Your task to perform on an android device: set default search engine in the chrome app Image 0: 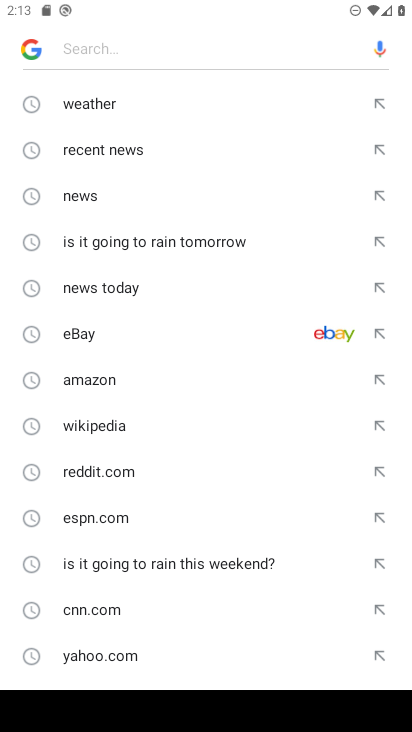
Step 0: press home button
Your task to perform on an android device: set default search engine in the chrome app Image 1: 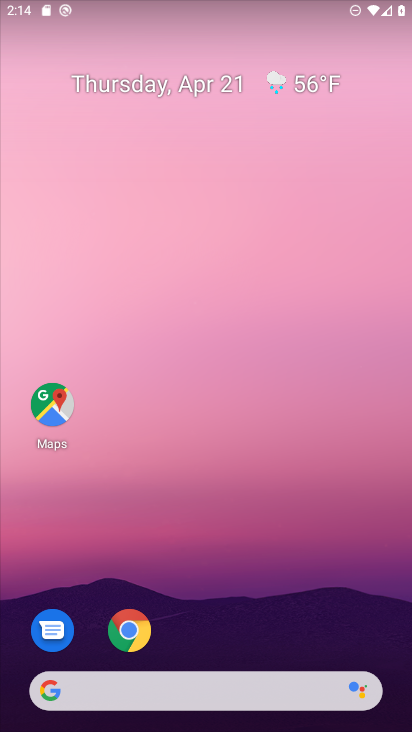
Step 1: click (132, 605)
Your task to perform on an android device: set default search engine in the chrome app Image 2: 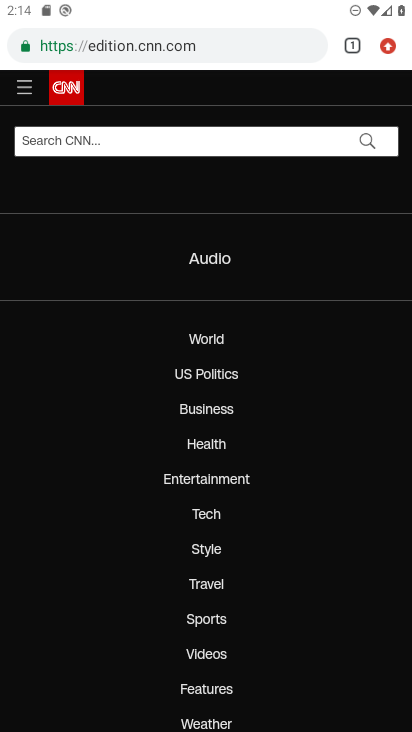
Step 2: drag from (391, 48) to (263, 600)
Your task to perform on an android device: set default search engine in the chrome app Image 3: 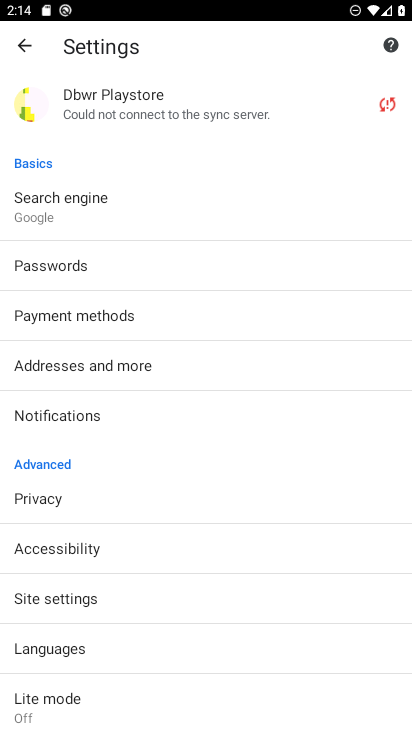
Step 3: click (77, 199)
Your task to perform on an android device: set default search engine in the chrome app Image 4: 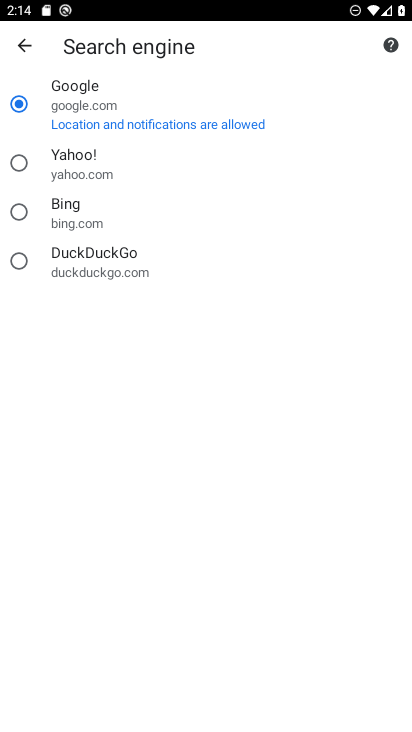
Step 4: click (111, 175)
Your task to perform on an android device: set default search engine in the chrome app Image 5: 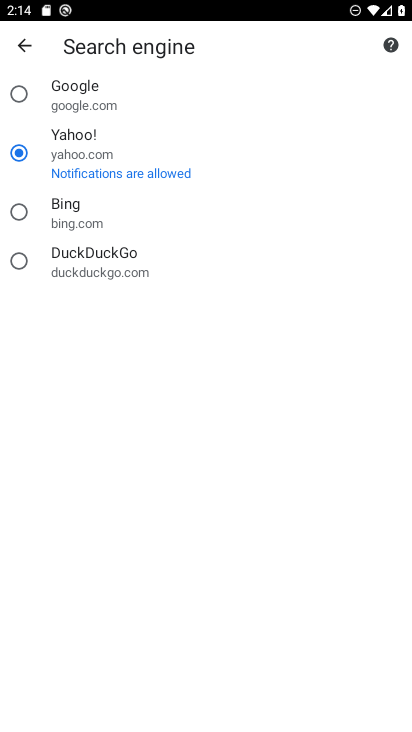
Step 5: task complete